Your task to perform on an android device: check the backup settings in the google photos Image 0: 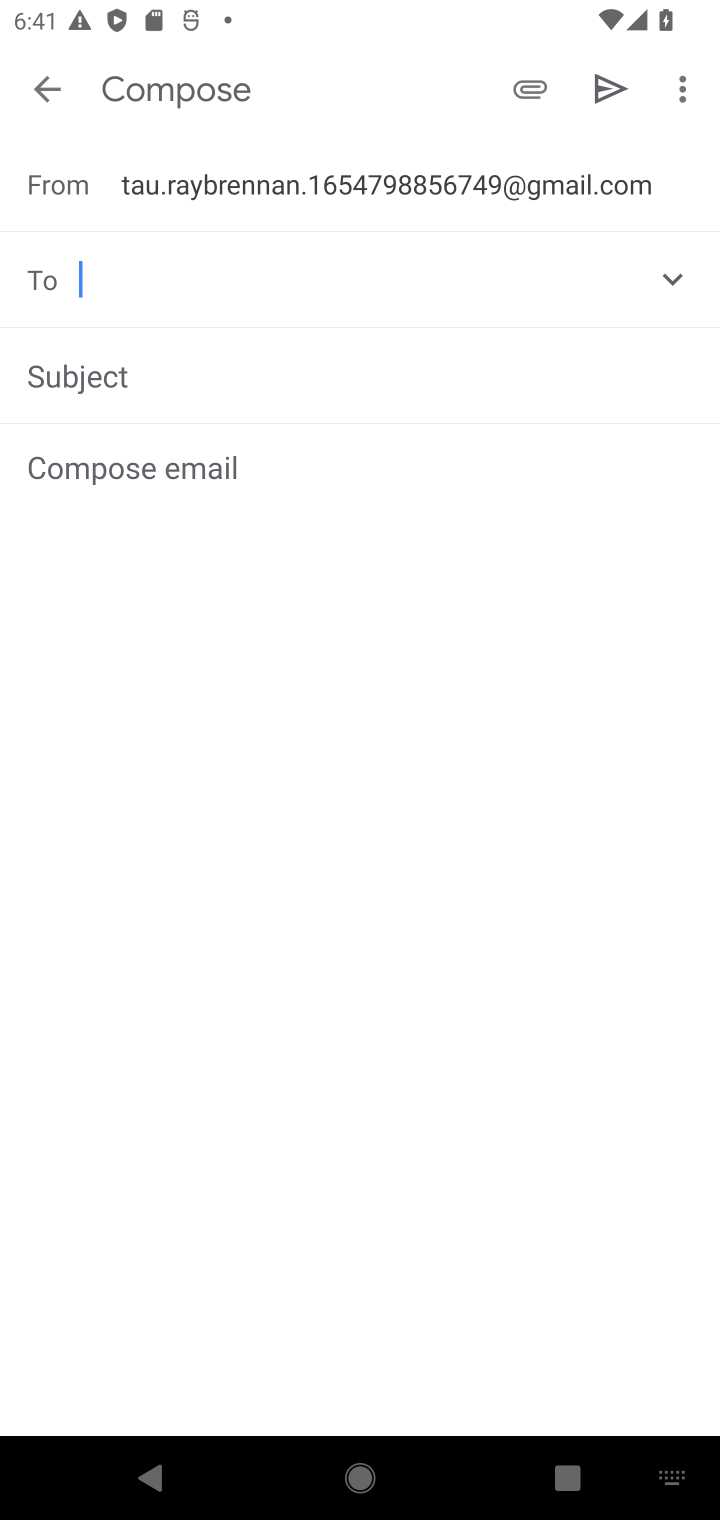
Step 0: press home button
Your task to perform on an android device: check the backup settings in the google photos Image 1: 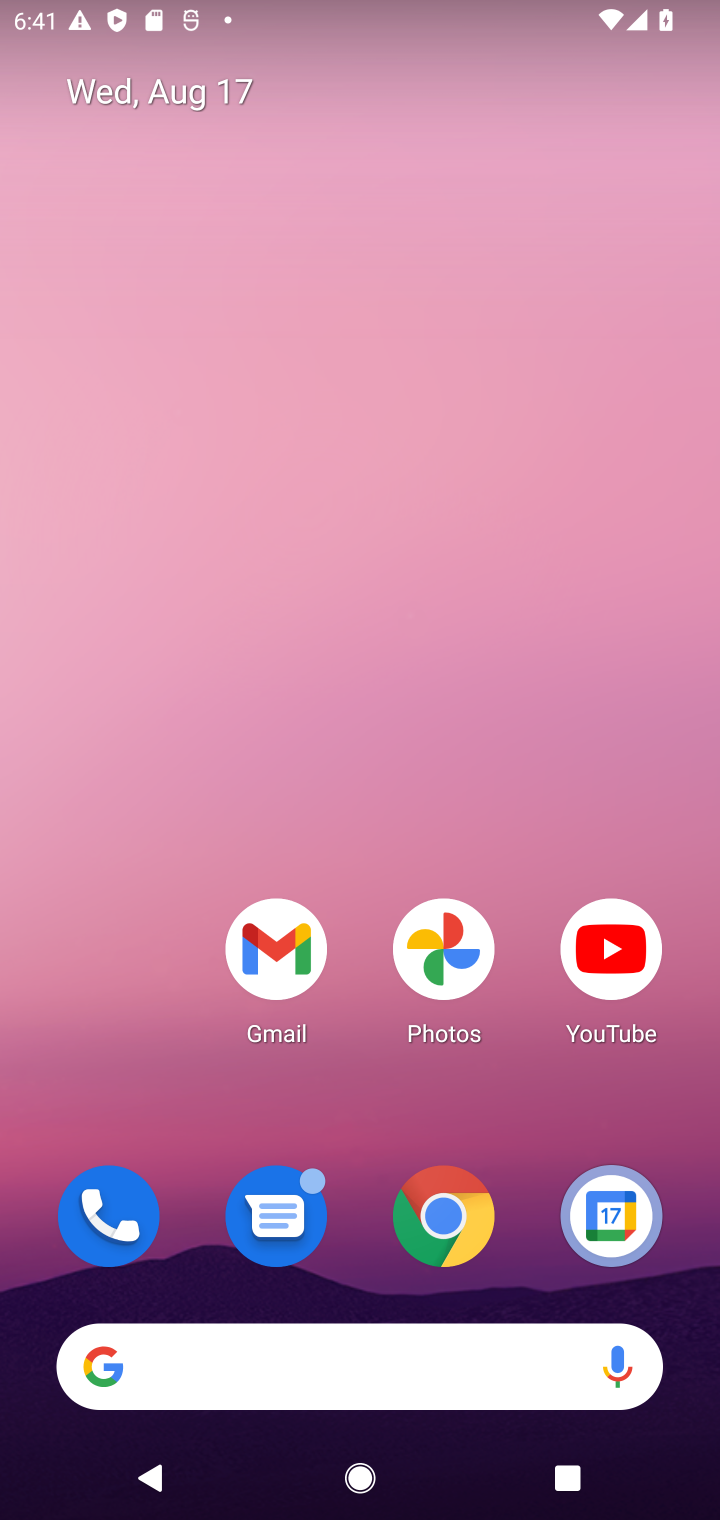
Step 1: click (419, 935)
Your task to perform on an android device: check the backup settings in the google photos Image 2: 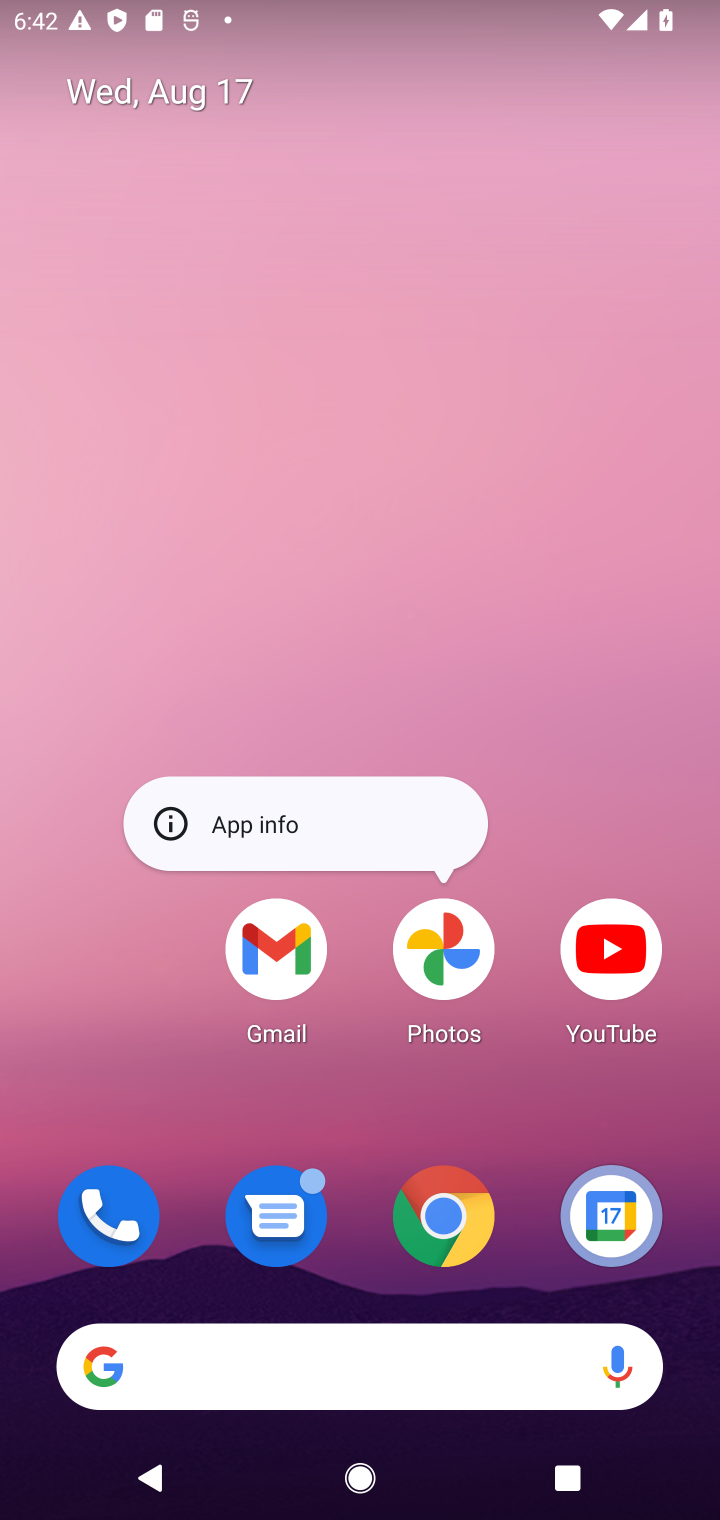
Step 2: click (457, 947)
Your task to perform on an android device: check the backup settings in the google photos Image 3: 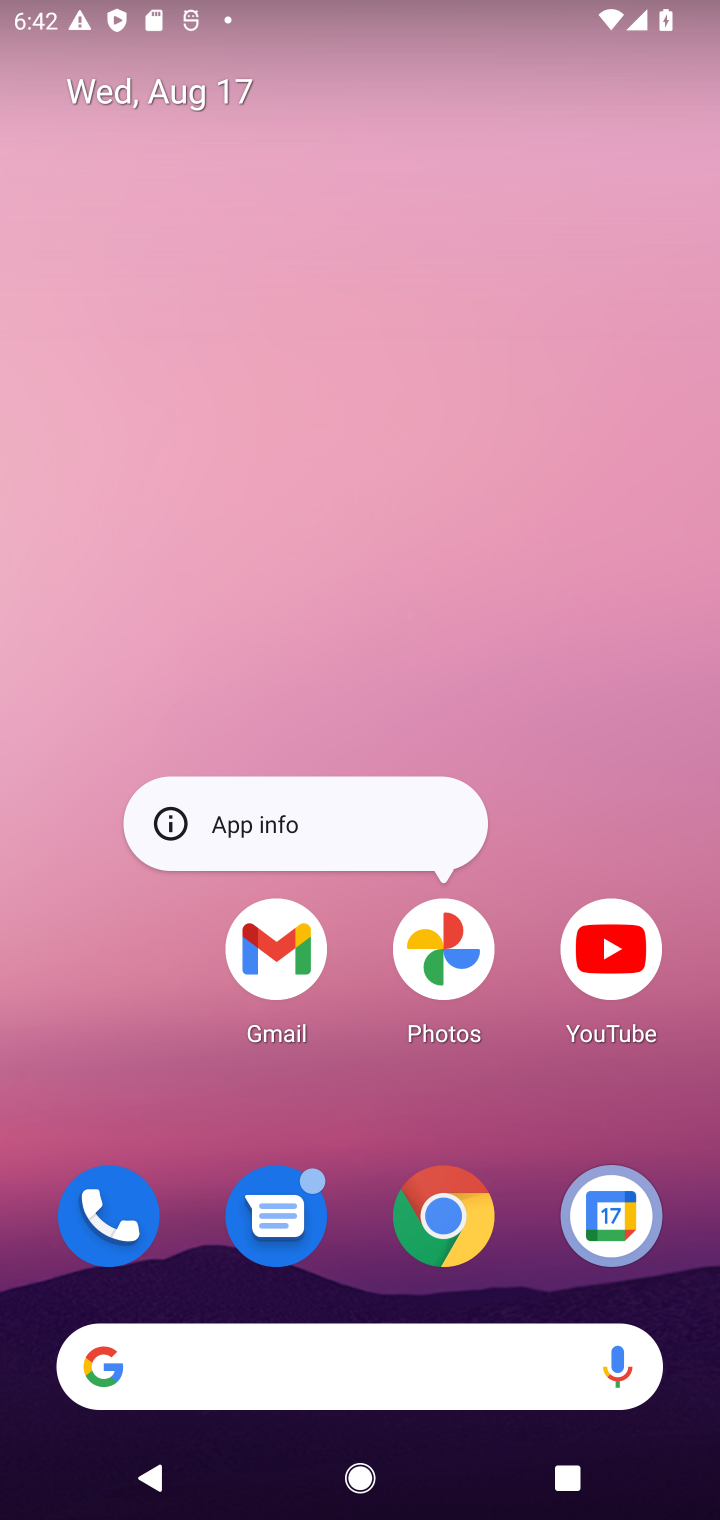
Step 3: click (455, 977)
Your task to perform on an android device: check the backup settings in the google photos Image 4: 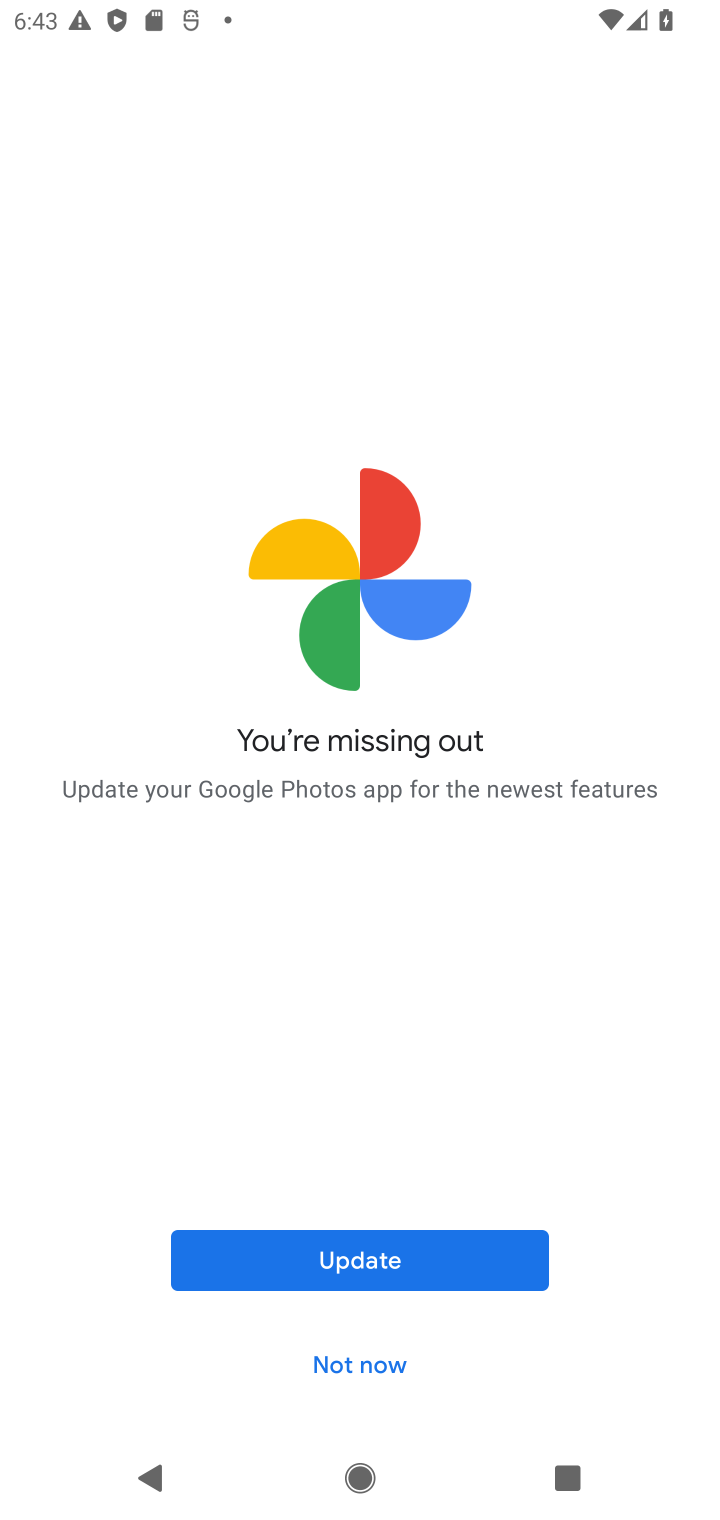
Step 4: click (390, 1361)
Your task to perform on an android device: check the backup settings in the google photos Image 5: 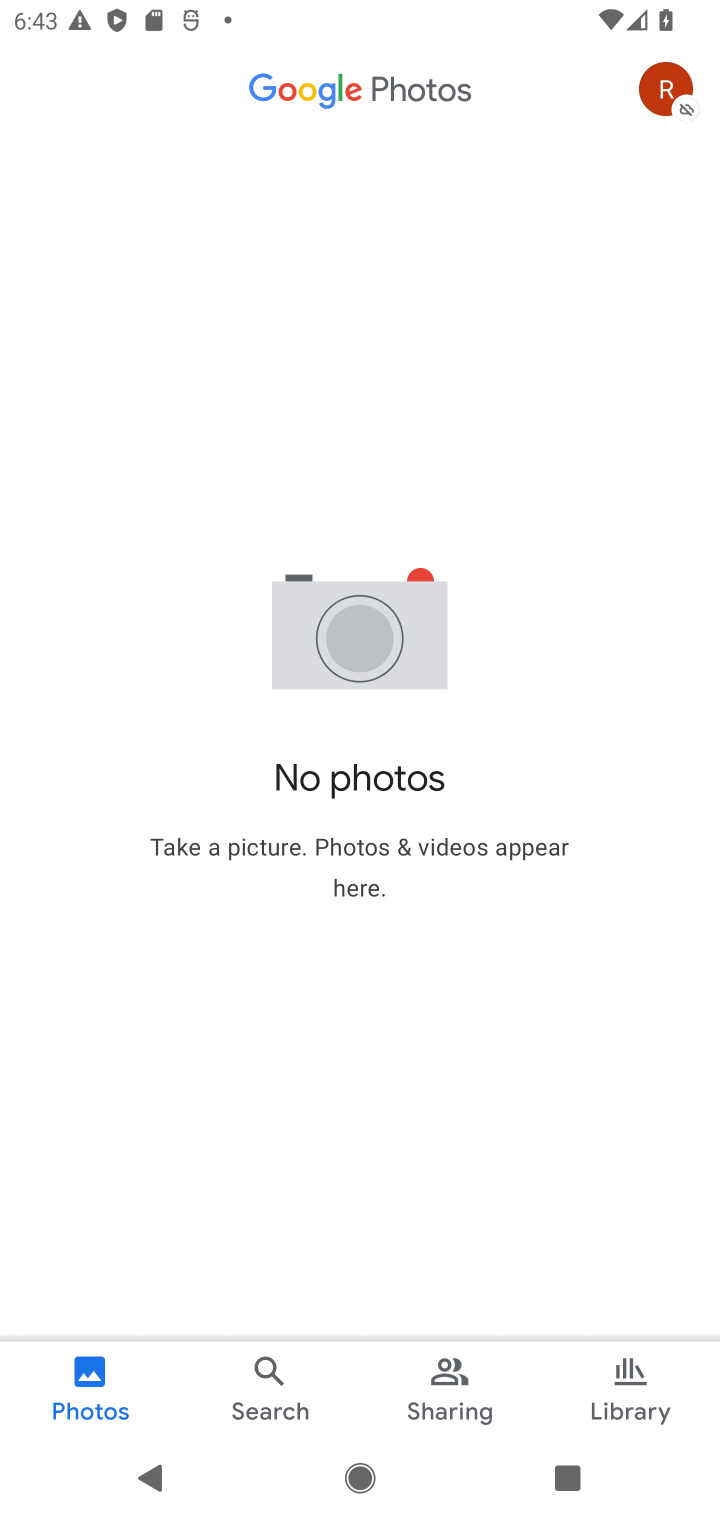
Step 5: click (98, 1346)
Your task to perform on an android device: check the backup settings in the google photos Image 6: 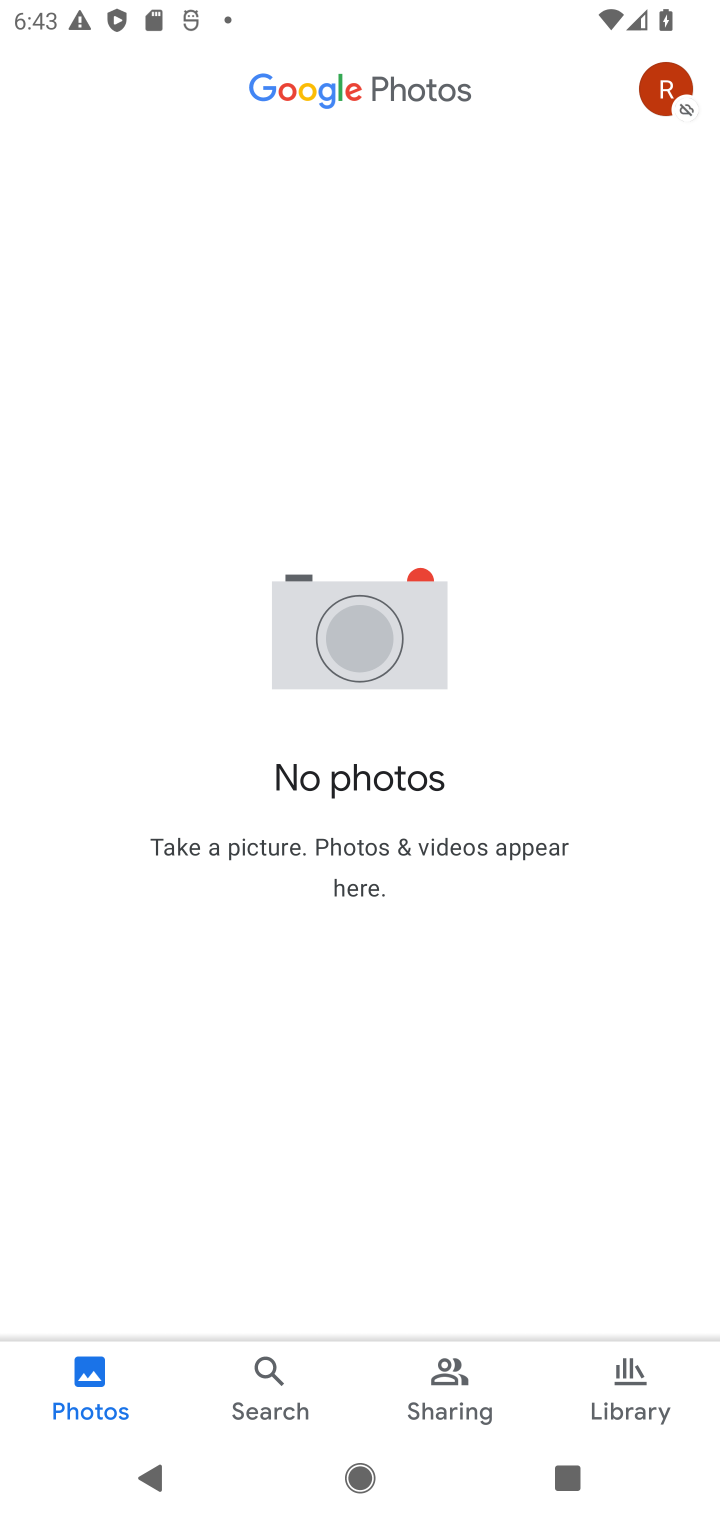
Step 6: click (662, 98)
Your task to perform on an android device: check the backup settings in the google photos Image 7: 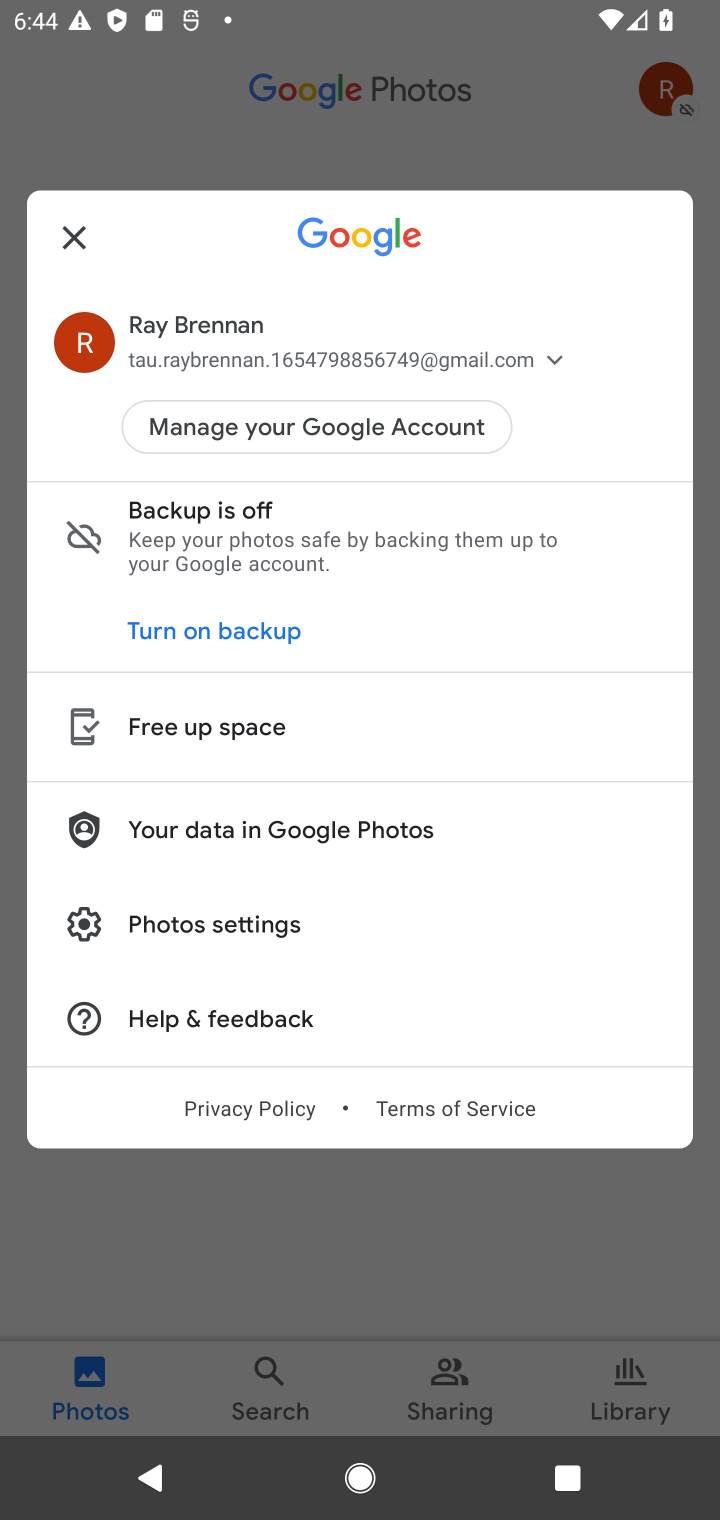
Step 7: click (226, 919)
Your task to perform on an android device: check the backup settings in the google photos Image 8: 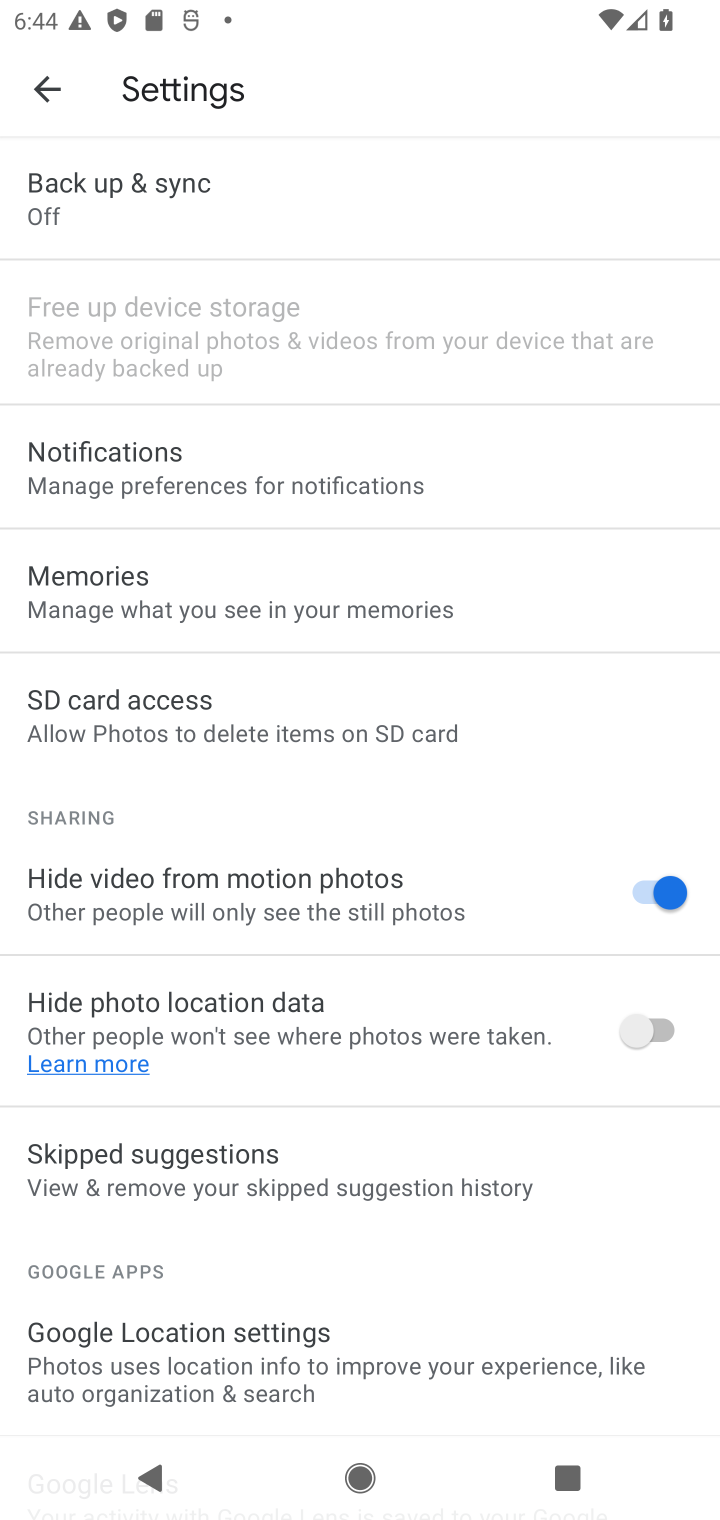
Step 8: click (176, 196)
Your task to perform on an android device: check the backup settings in the google photos Image 9: 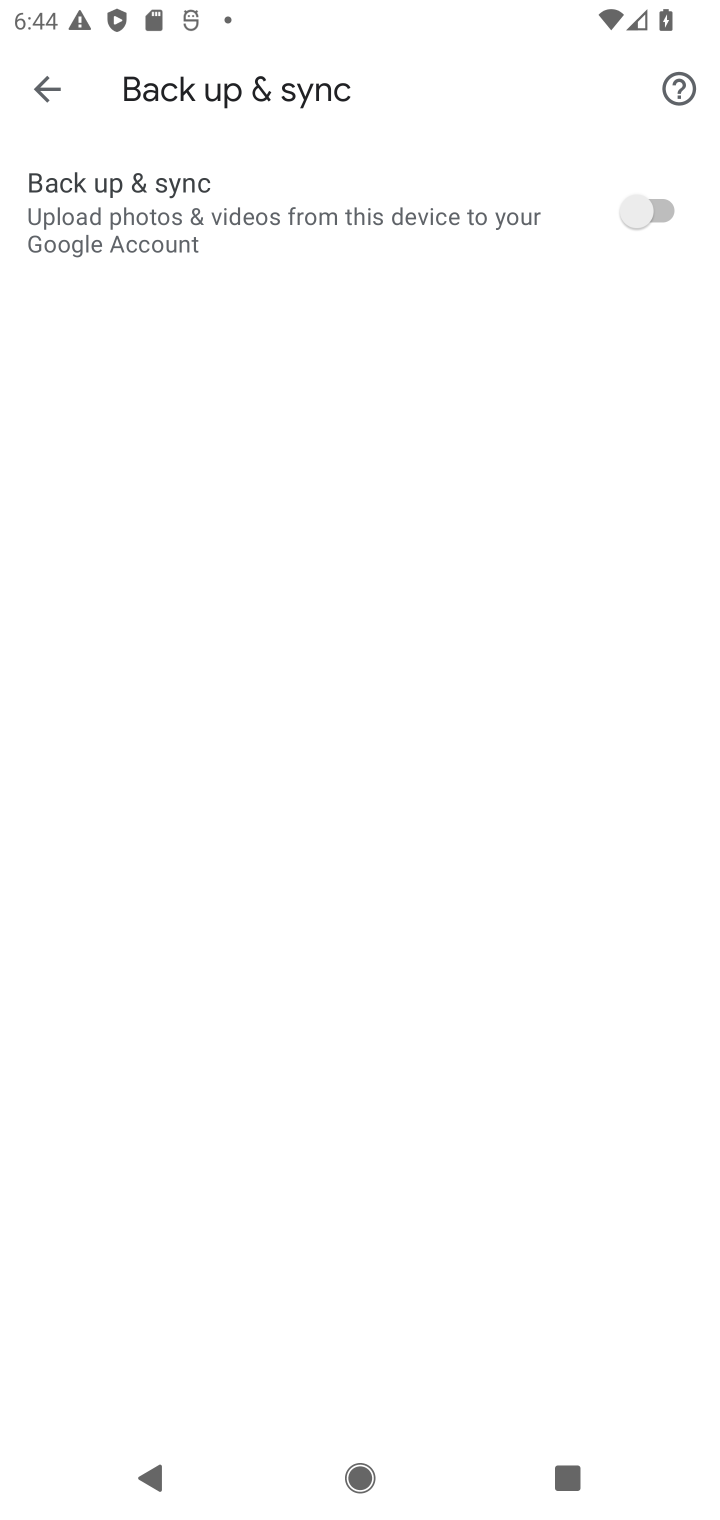
Step 9: task complete